Your task to perform on an android device: Open calendar and show me the second week of next month Image 0: 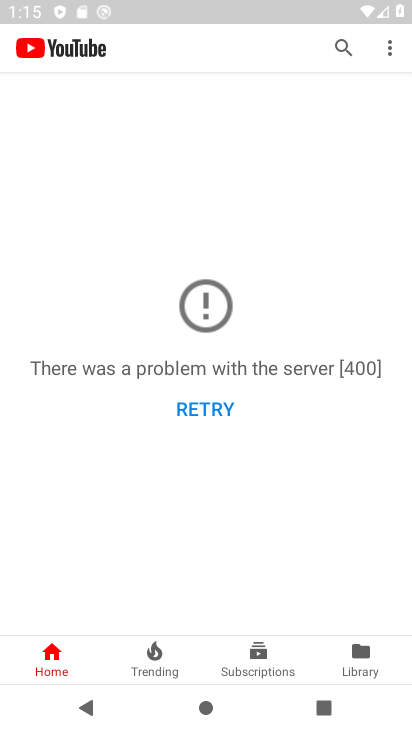
Step 0: press back button
Your task to perform on an android device: Open calendar and show me the second week of next month Image 1: 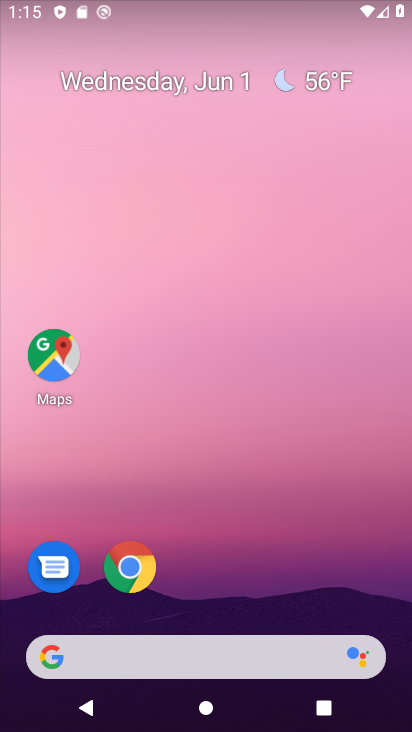
Step 1: drag from (230, 650) to (200, 41)
Your task to perform on an android device: Open calendar and show me the second week of next month Image 2: 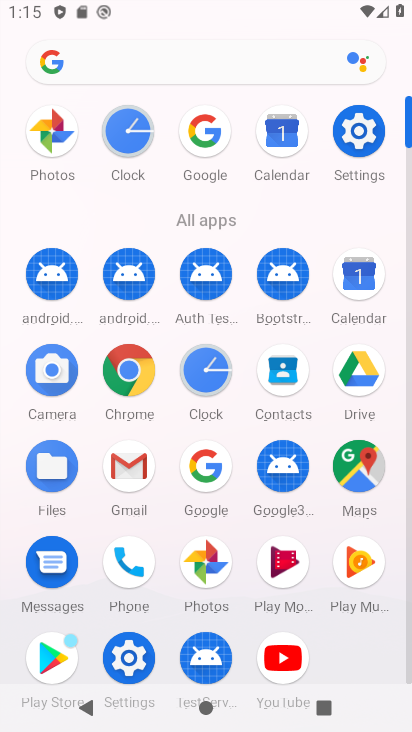
Step 2: click (355, 280)
Your task to perform on an android device: Open calendar and show me the second week of next month Image 3: 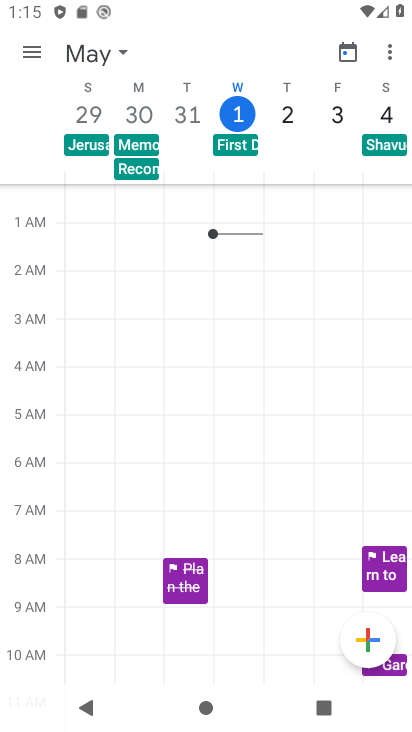
Step 3: click (30, 61)
Your task to perform on an android device: Open calendar and show me the second week of next month Image 4: 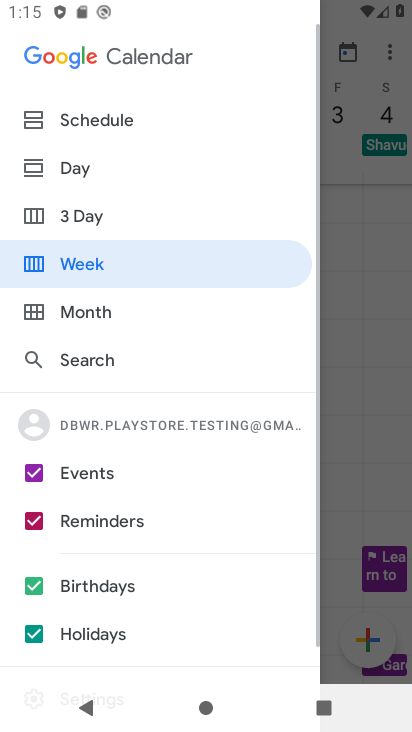
Step 4: click (81, 306)
Your task to perform on an android device: Open calendar and show me the second week of next month Image 5: 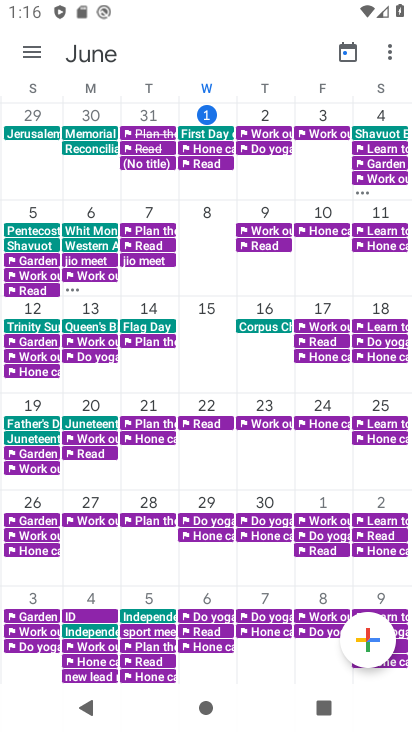
Step 5: task complete